Your task to perform on an android device: turn on improve location accuracy Image 0: 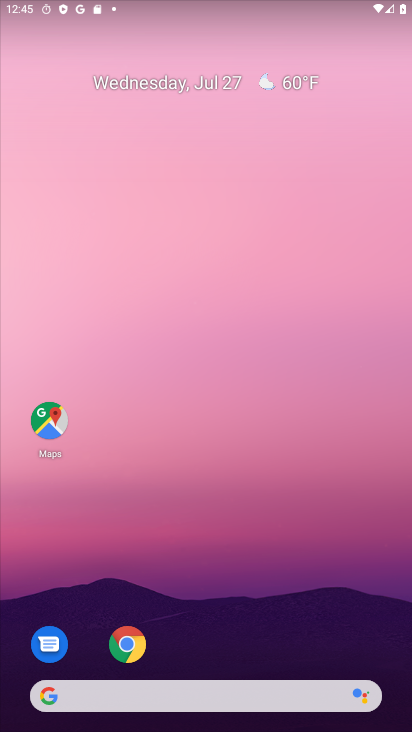
Step 0: drag from (302, 484) to (332, 222)
Your task to perform on an android device: turn on improve location accuracy Image 1: 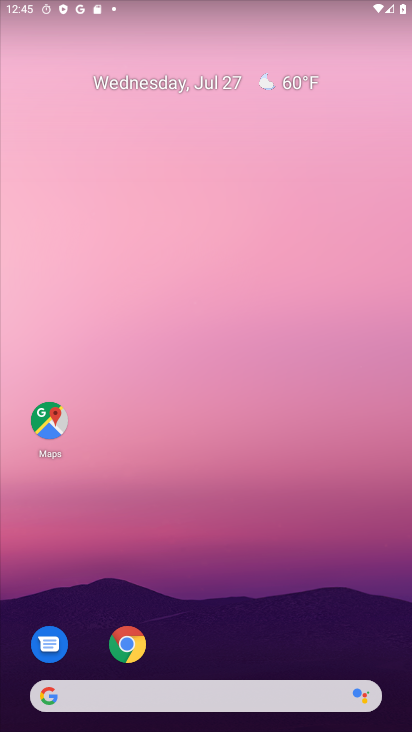
Step 1: drag from (193, 668) to (235, 187)
Your task to perform on an android device: turn on improve location accuracy Image 2: 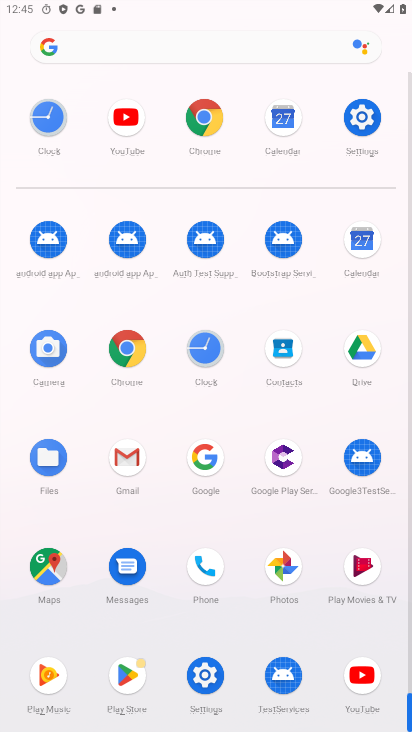
Step 2: click (199, 681)
Your task to perform on an android device: turn on improve location accuracy Image 3: 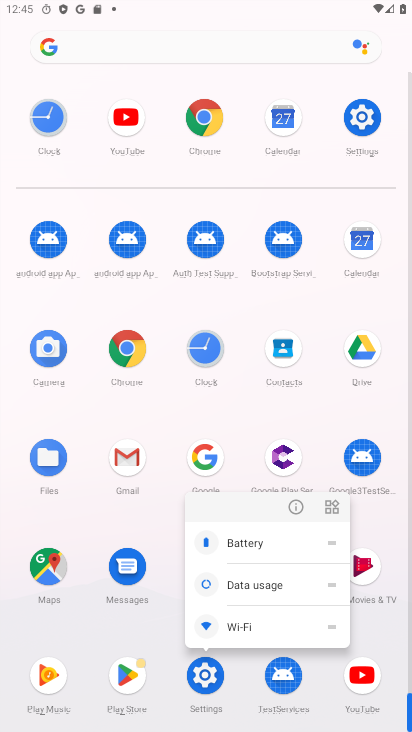
Step 3: click (297, 505)
Your task to perform on an android device: turn on improve location accuracy Image 4: 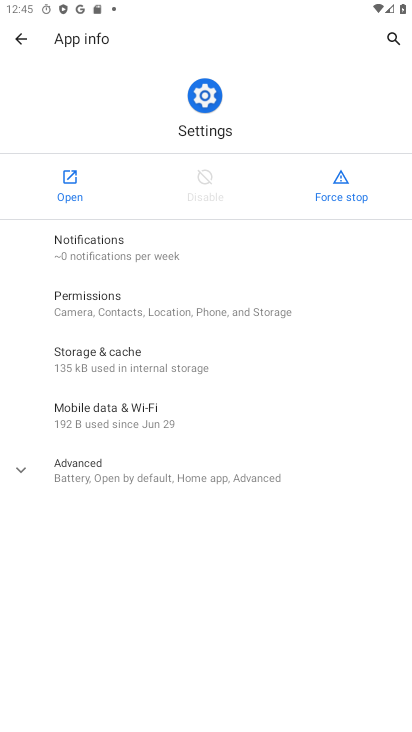
Step 4: click (77, 186)
Your task to perform on an android device: turn on improve location accuracy Image 5: 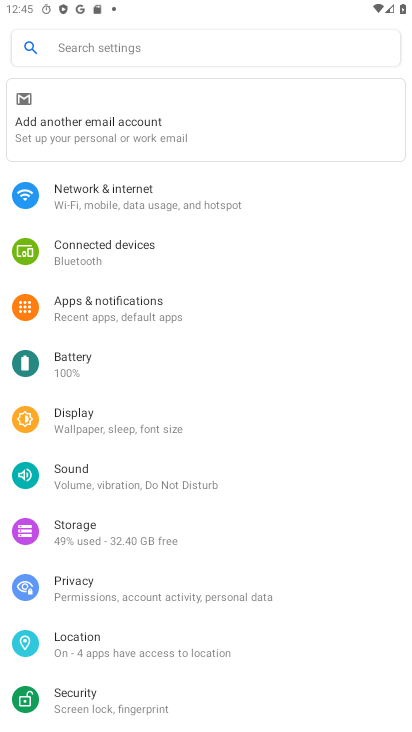
Step 5: click (94, 643)
Your task to perform on an android device: turn on improve location accuracy Image 6: 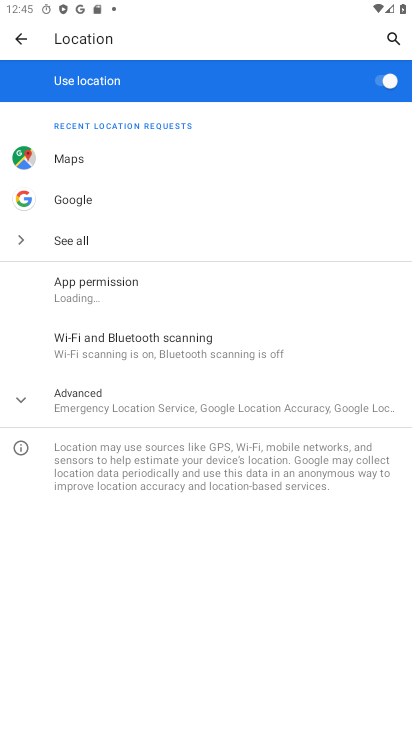
Step 6: click (194, 411)
Your task to perform on an android device: turn on improve location accuracy Image 7: 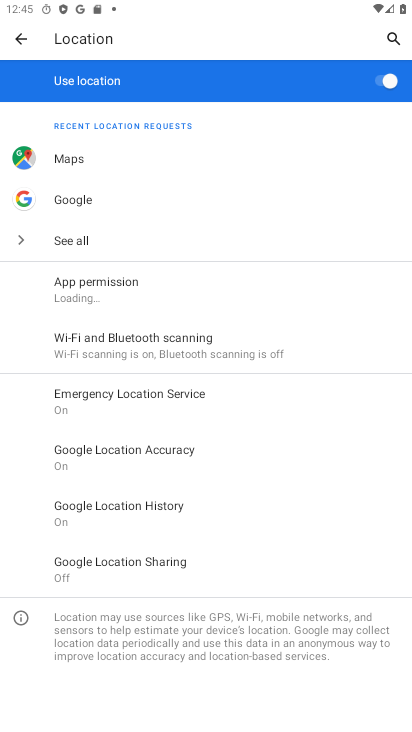
Step 7: click (181, 457)
Your task to perform on an android device: turn on improve location accuracy Image 8: 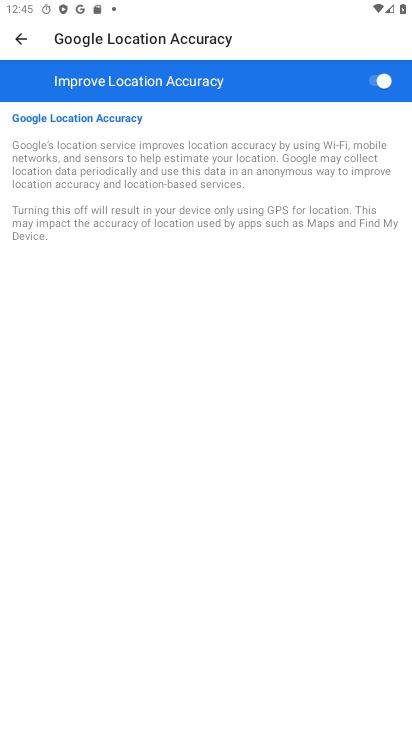
Step 8: task complete